Your task to perform on an android device: Search for Mexican restaurants on Maps Image 0: 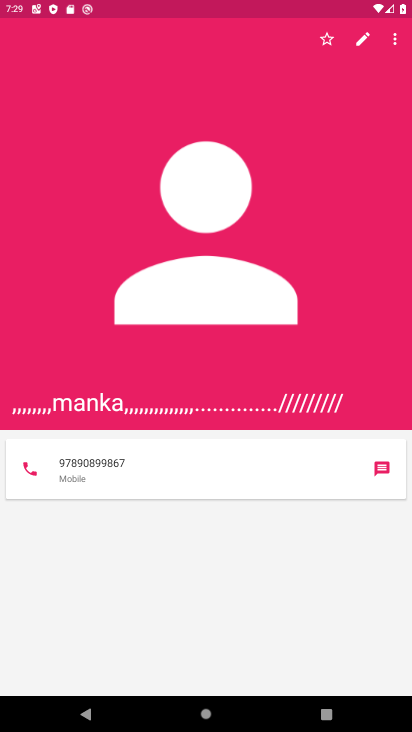
Step 0: press home button
Your task to perform on an android device: Search for Mexican restaurants on Maps Image 1: 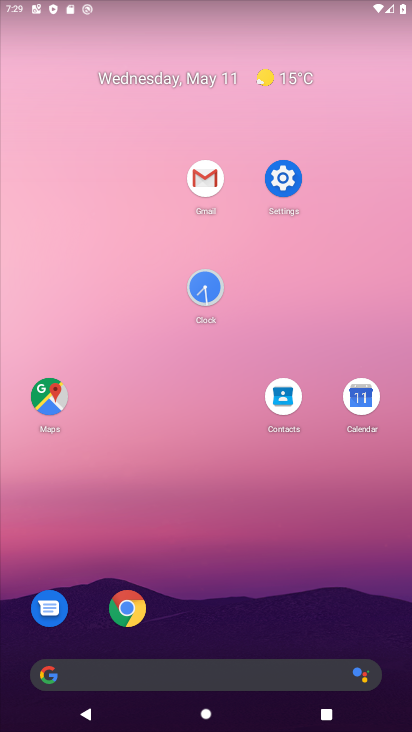
Step 1: click (59, 410)
Your task to perform on an android device: Search for Mexican restaurants on Maps Image 2: 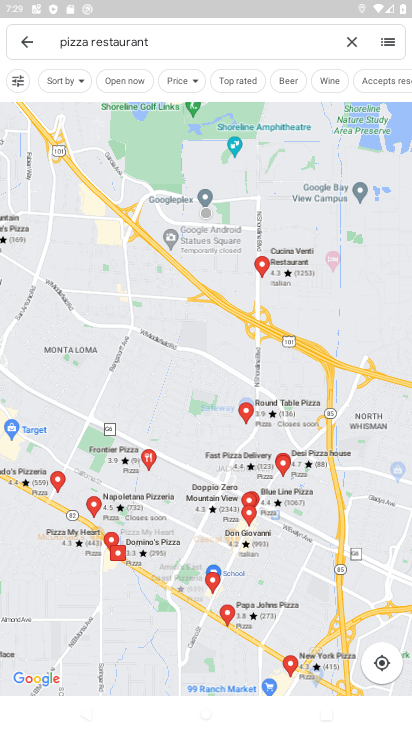
Step 2: click (227, 43)
Your task to perform on an android device: Search for Mexican restaurants on Maps Image 3: 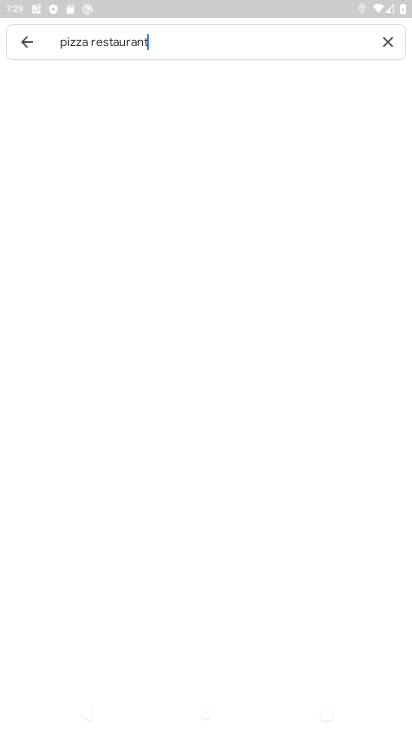
Step 3: click (198, 43)
Your task to perform on an android device: Search for Mexican restaurants on Maps Image 4: 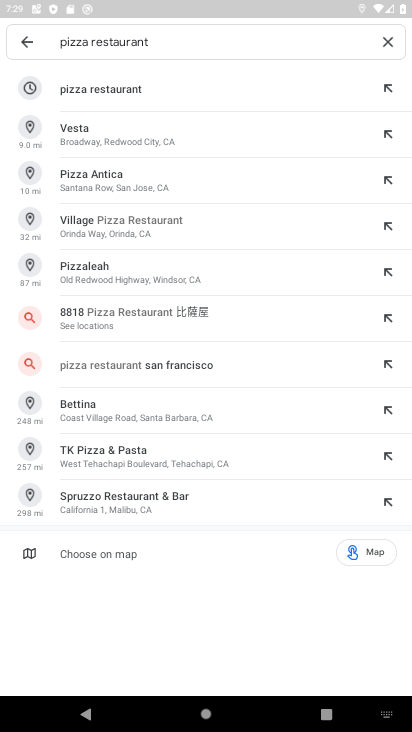
Step 4: click (198, 43)
Your task to perform on an android device: Search for Mexican restaurants on Maps Image 5: 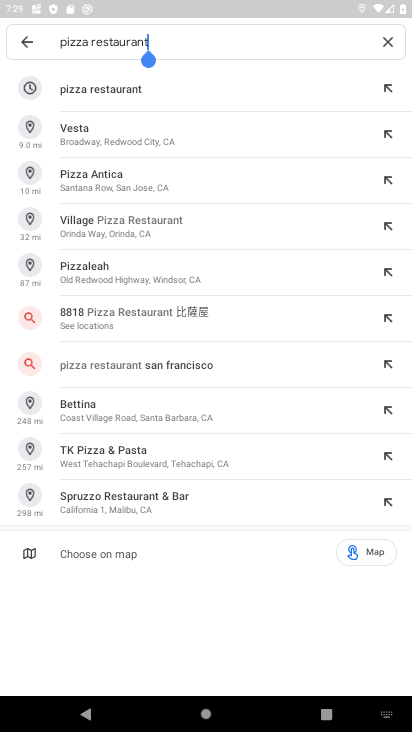
Step 5: click (198, 43)
Your task to perform on an android device: Search for Mexican restaurants on Maps Image 6: 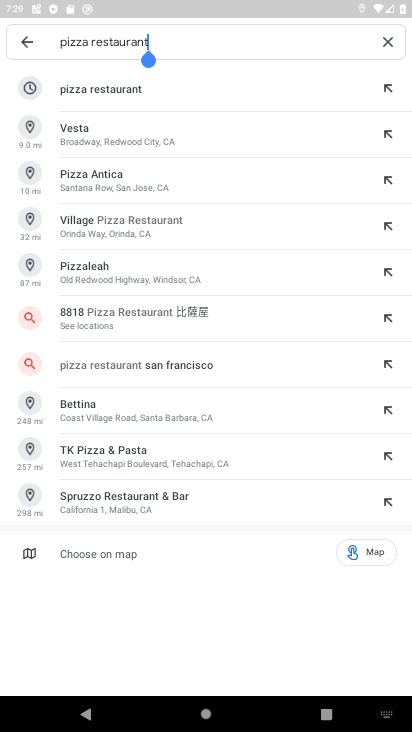
Step 6: click (198, 43)
Your task to perform on an android device: Search for Mexican restaurants on Maps Image 7: 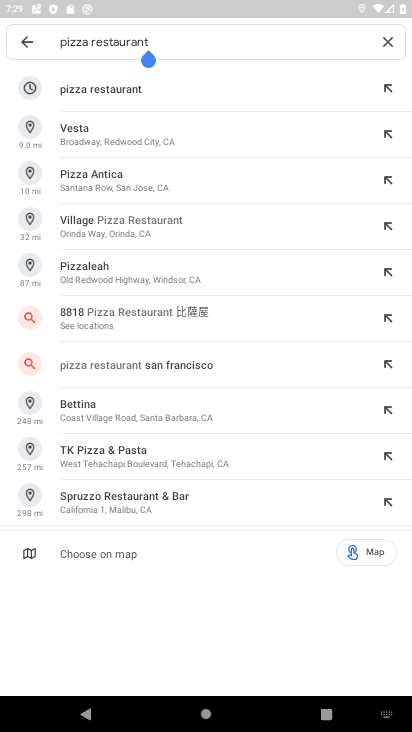
Step 7: click (198, 43)
Your task to perform on an android device: Search for Mexican restaurants on Maps Image 8: 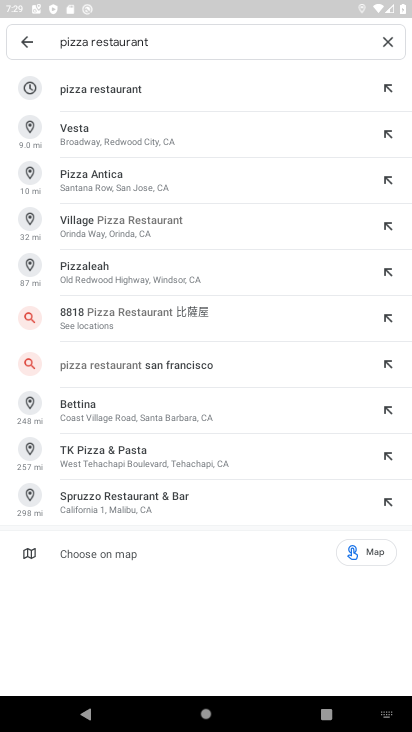
Step 8: click (198, 43)
Your task to perform on an android device: Search for Mexican restaurants on Maps Image 9: 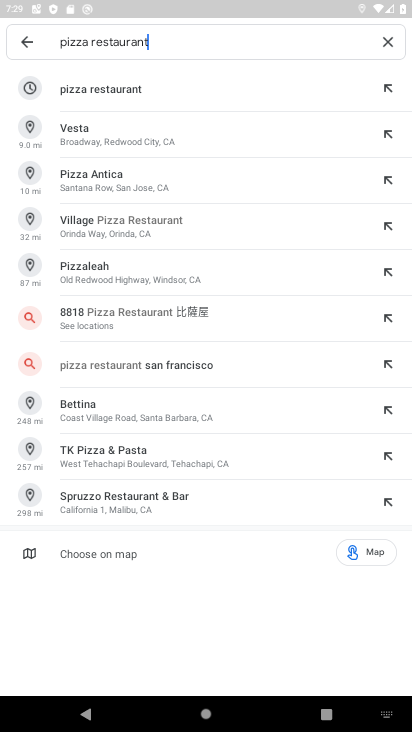
Step 9: click (388, 50)
Your task to perform on an android device: Search for Mexican restaurants on Maps Image 10: 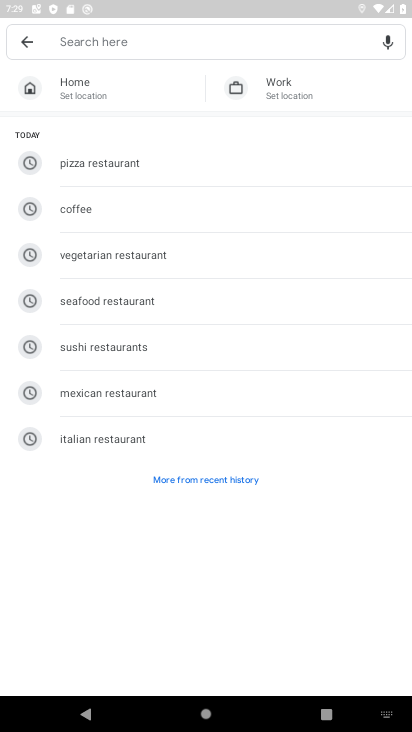
Step 10: click (155, 387)
Your task to perform on an android device: Search for Mexican restaurants on Maps Image 11: 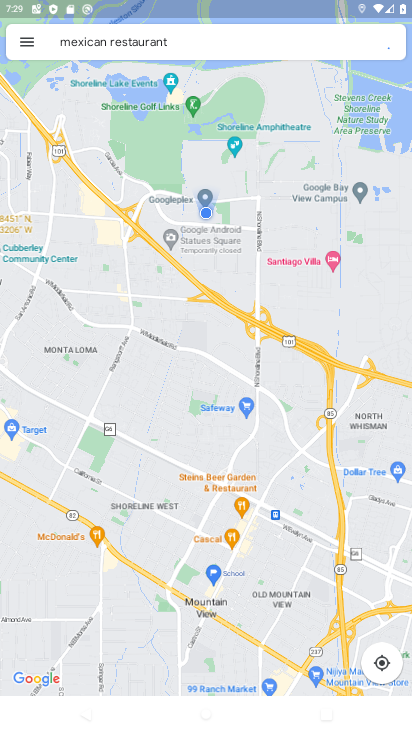
Step 11: task complete